Your task to perform on an android device: change text size in settings app Image 0: 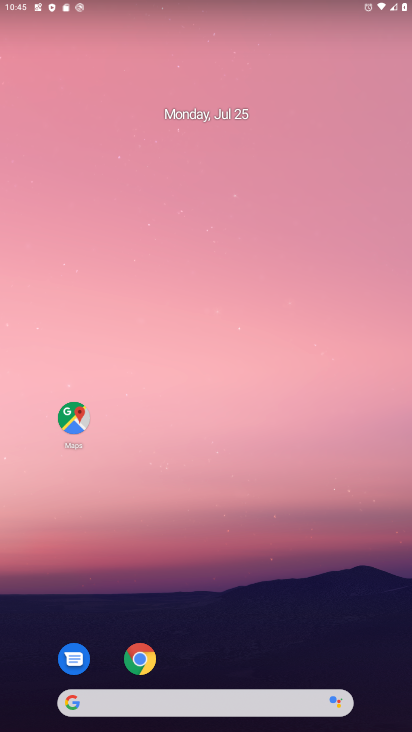
Step 0: drag from (231, 673) to (192, 132)
Your task to perform on an android device: change text size in settings app Image 1: 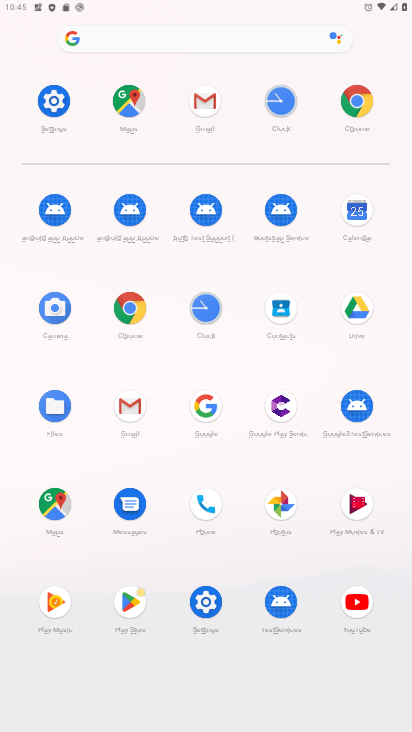
Step 1: click (46, 106)
Your task to perform on an android device: change text size in settings app Image 2: 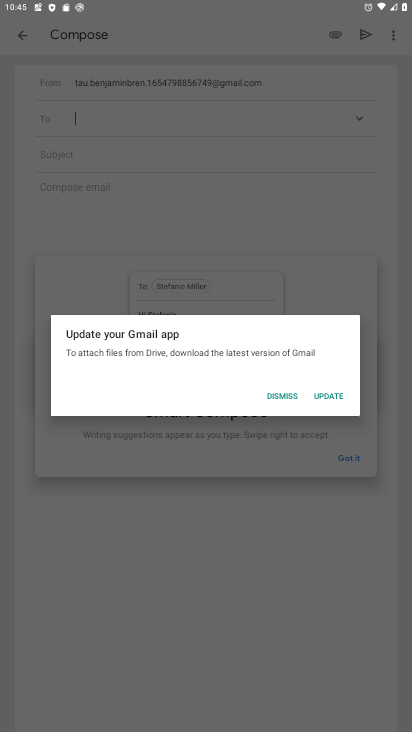
Step 2: click (279, 399)
Your task to perform on an android device: change text size in settings app Image 3: 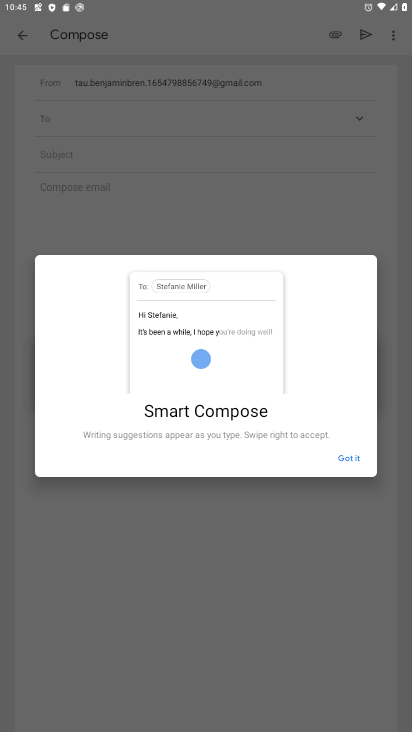
Step 3: click (353, 459)
Your task to perform on an android device: change text size in settings app Image 4: 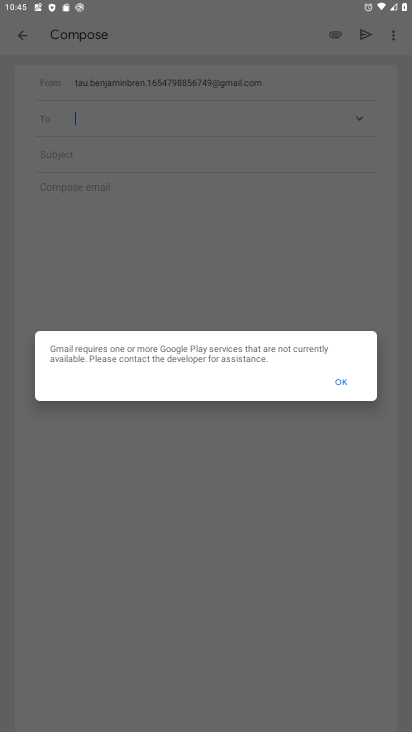
Step 4: click (338, 378)
Your task to perform on an android device: change text size in settings app Image 5: 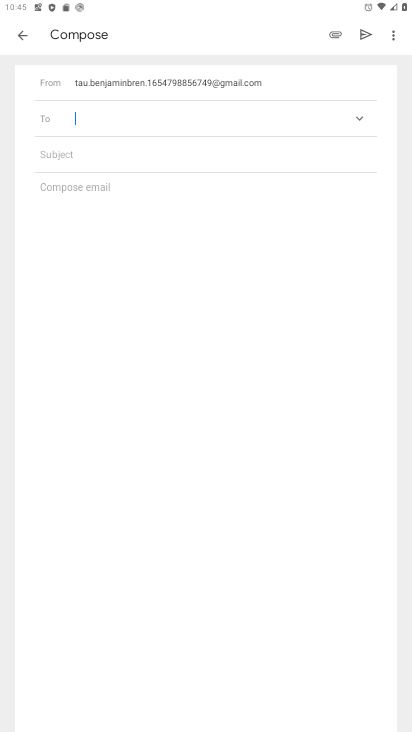
Step 5: press home button
Your task to perform on an android device: change text size in settings app Image 6: 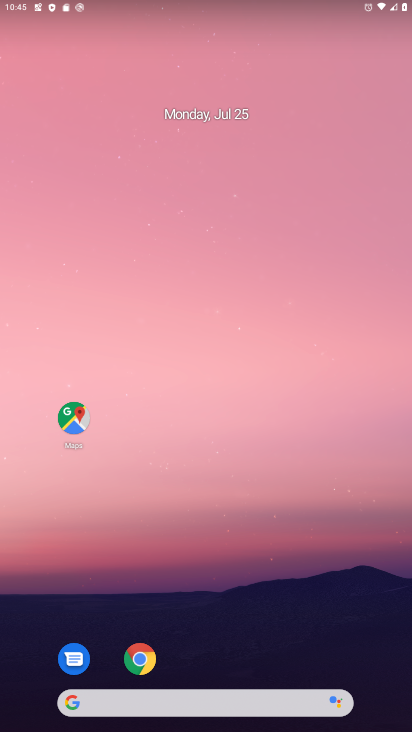
Step 6: drag from (217, 675) to (137, 10)
Your task to perform on an android device: change text size in settings app Image 7: 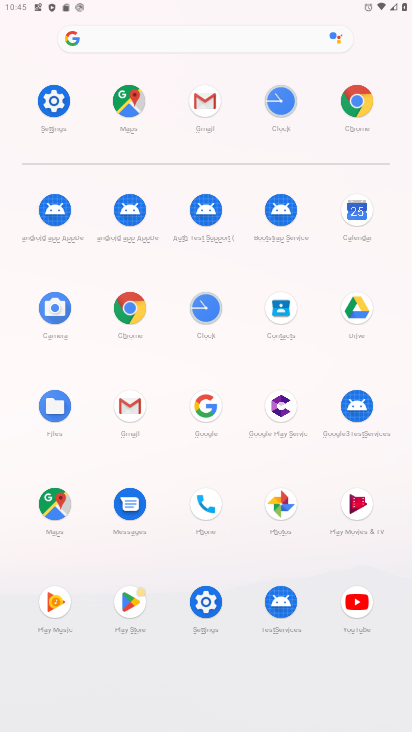
Step 7: click (209, 608)
Your task to perform on an android device: change text size in settings app Image 8: 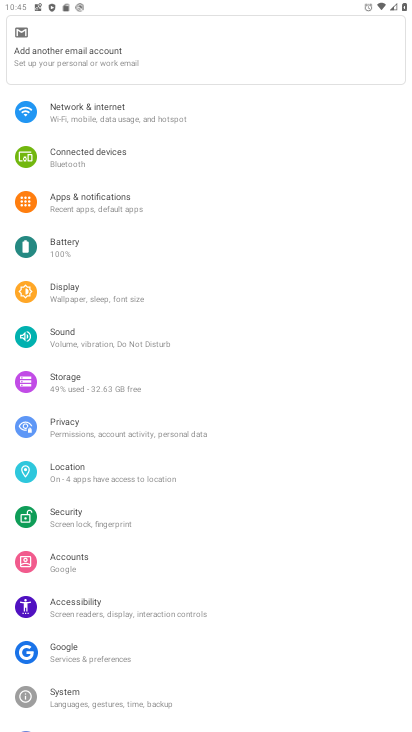
Step 8: click (64, 291)
Your task to perform on an android device: change text size in settings app Image 9: 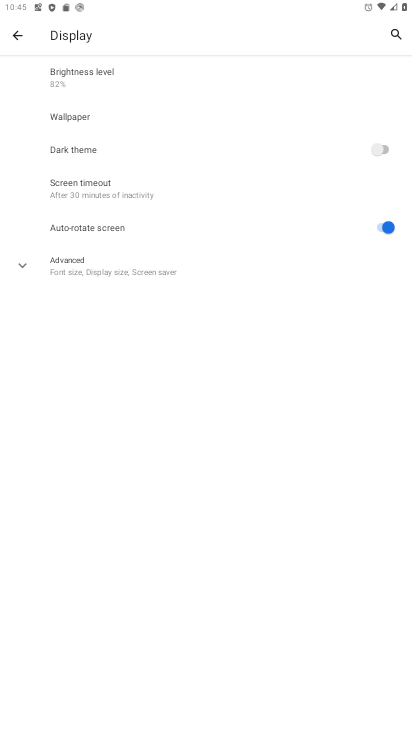
Step 9: click (77, 272)
Your task to perform on an android device: change text size in settings app Image 10: 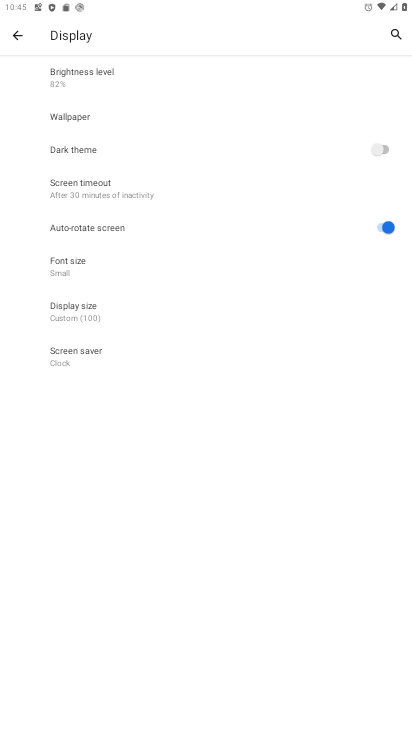
Step 10: click (83, 320)
Your task to perform on an android device: change text size in settings app Image 11: 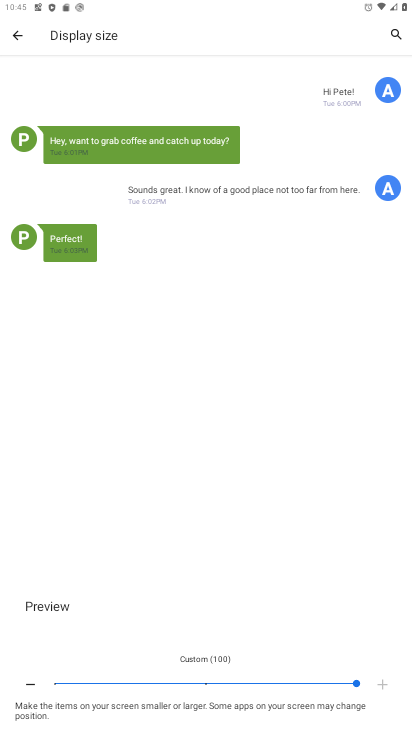
Step 11: click (202, 677)
Your task to perform on an android device: change text size in settings app Image 12: 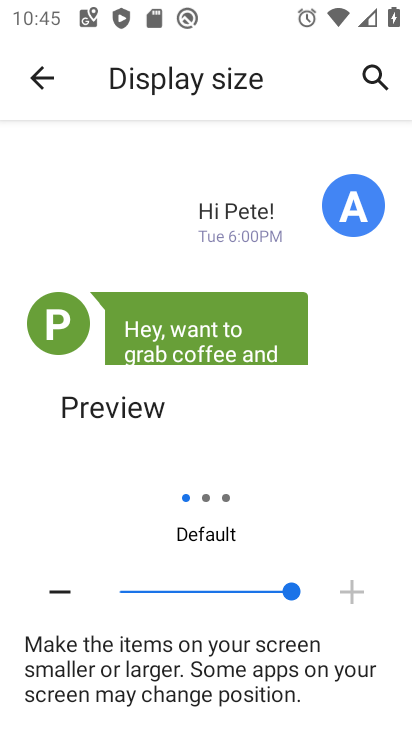
Step 12: click (124, 591)
Your task to perform on an android device: change text size in settings app Image 13: 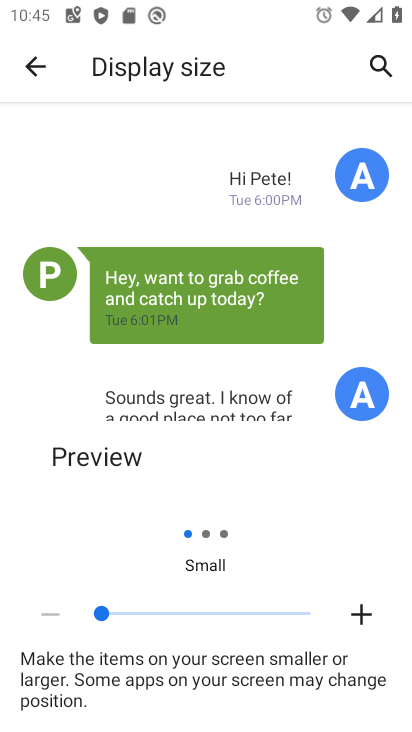
Step 13: task complete